Your task to perform on an android device: Open maps Image 0: 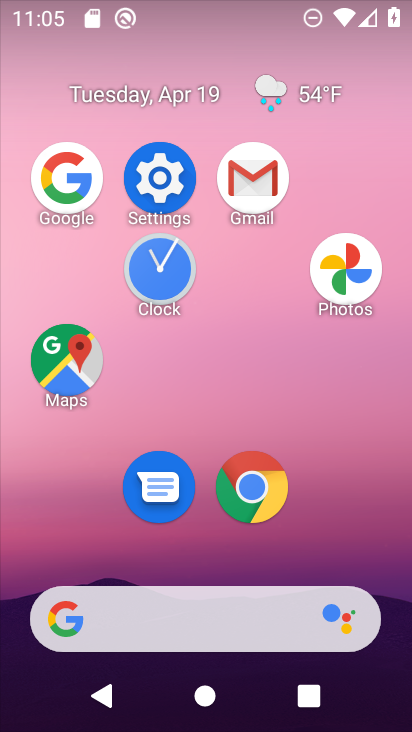
Step 0: click (66, 358)
Your task to perform on an android device: Open maps Image 1: 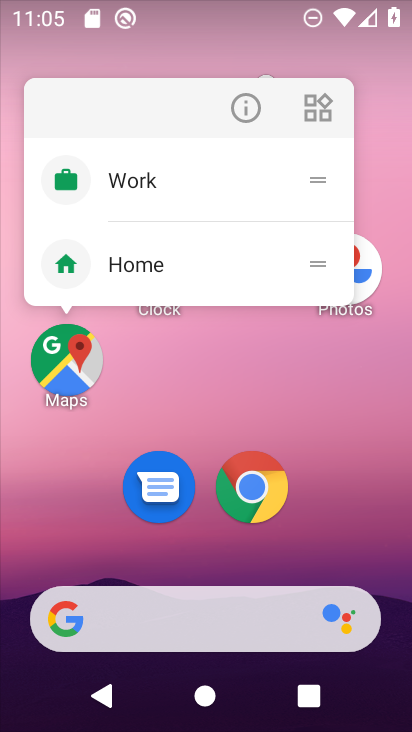
Step 1: click (76, 363)
Your task to perform on an android device: Open maps Image 2: 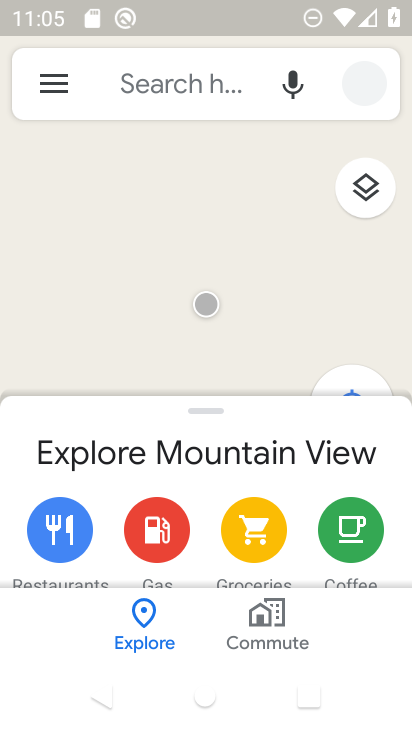
Step 2: task complete